Your task to perform on an android device: toggle wifi Image 0: 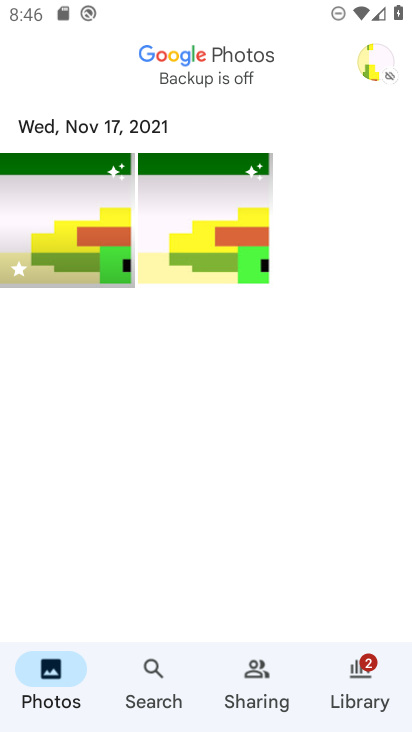
Step 0: press home button
Your task to perform on an android device: toggle wifi Image 1: 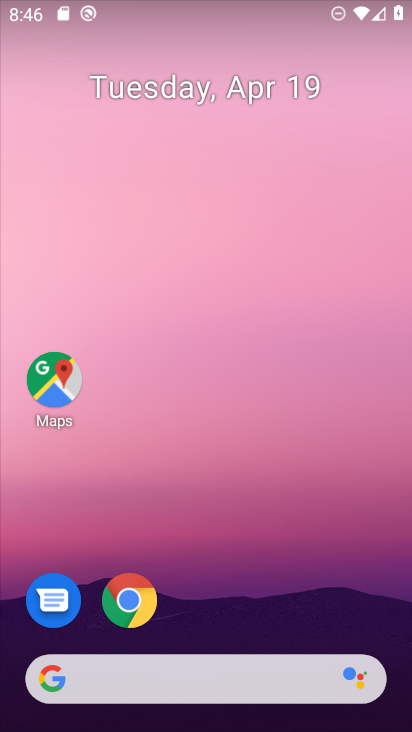
Step 1: drag from (245, 622) to (254, 137)
Your task to perform on an android device: toggle wifi Image 2: 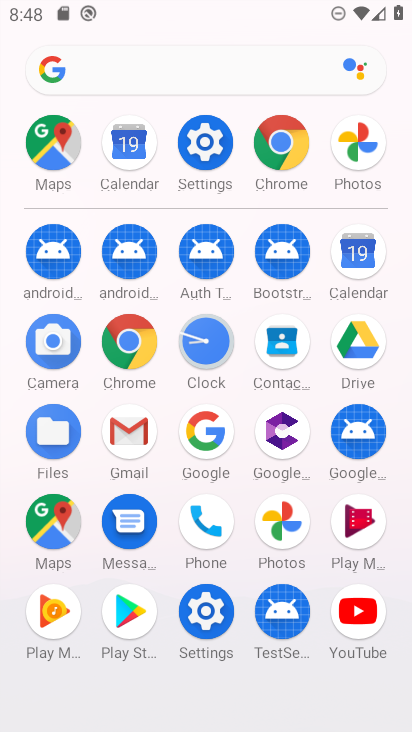
Step 2: drag from (222, 2) to (180, 475)
Your task to perform on an android device: toggle wifi Image 3: 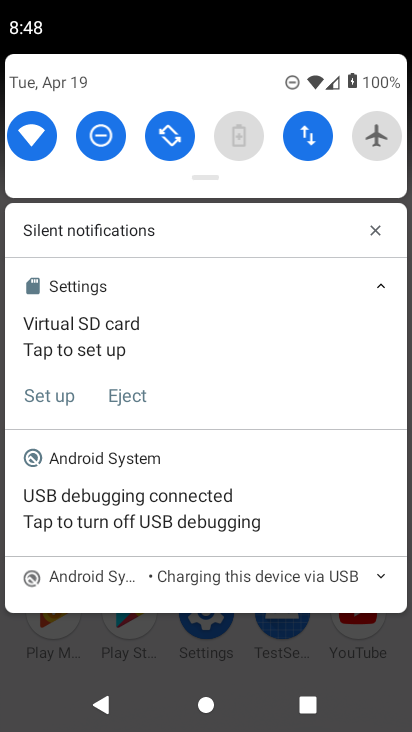
Step 3: click (30, 138)
Your task to perform on an android device: toggle wifi Image 4: 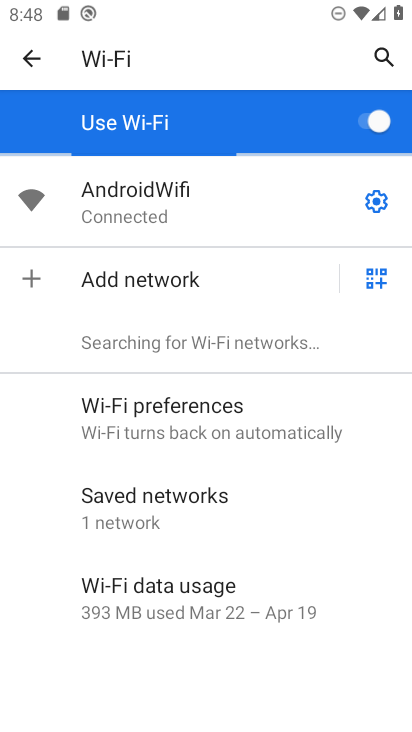
Step 4: click (376, 118)
Your task to perform on an android device: toggle wifi Image 5: 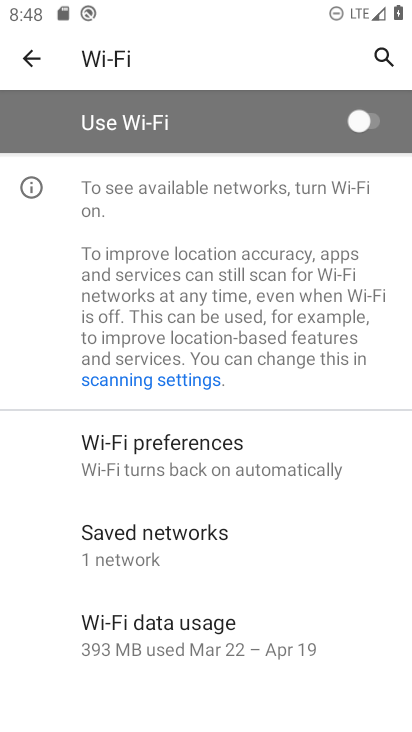
Step 5: task complete